Your task to perform on an android device: change notifications settings Image 0: 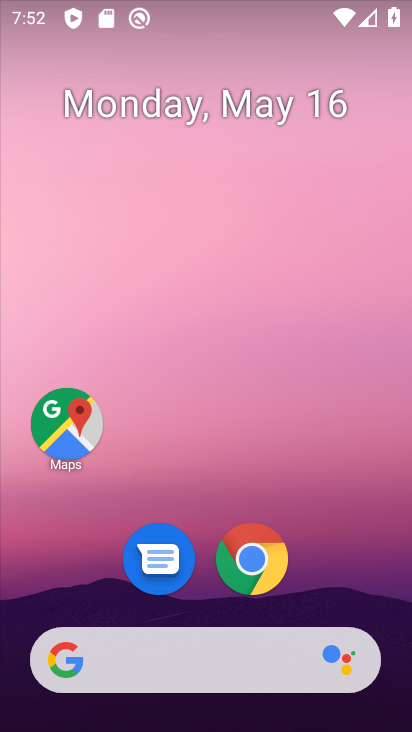
Step 0: drag from (218, 512) to (233, 290)
Your task to perform on an android device: change notifications settings Image 1: 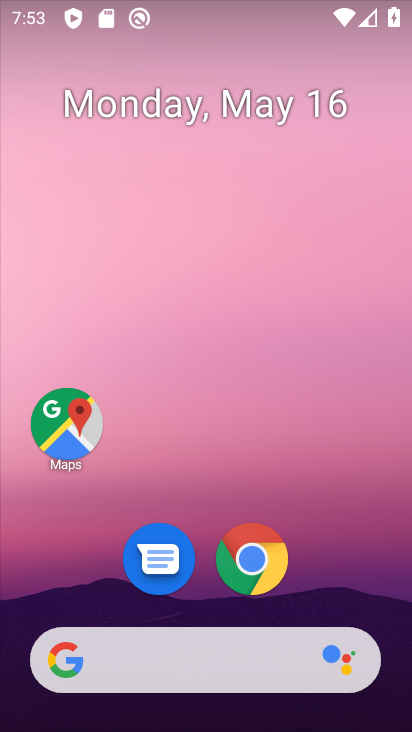
Step 1: drag from (234, 636) to (300, 108)
Your task to perform on an android device: change notifications settings Image 2: 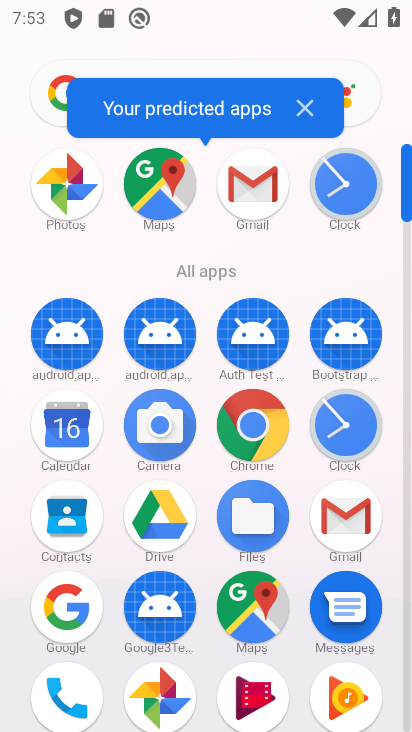
Step 2: drag from (232, 541) to (301, 123)
Your task to perform on an android device: change notifications settings Image 3: 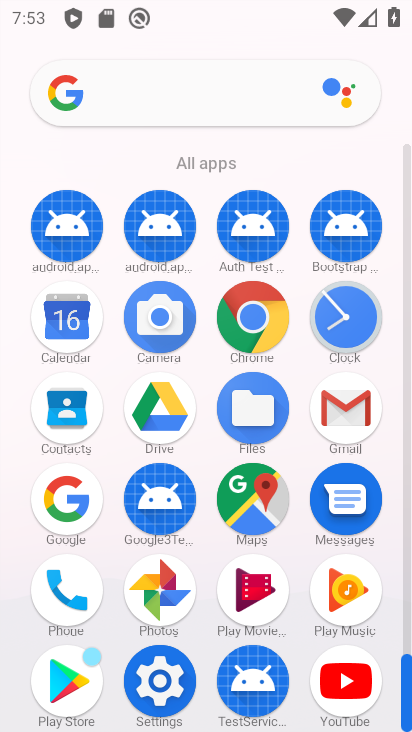
Step 3: click (162, 688)
Your task to perform on an android device: change notifications settings Image 4: 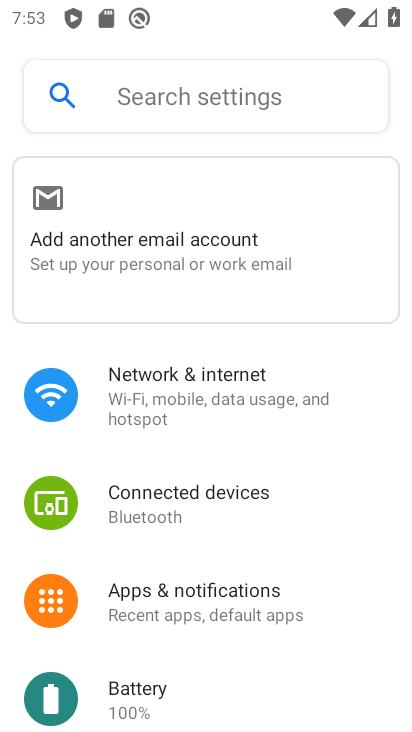
Step 4: click (199, 580)
Your task to perform on an android device: change notifications settings Image 5: 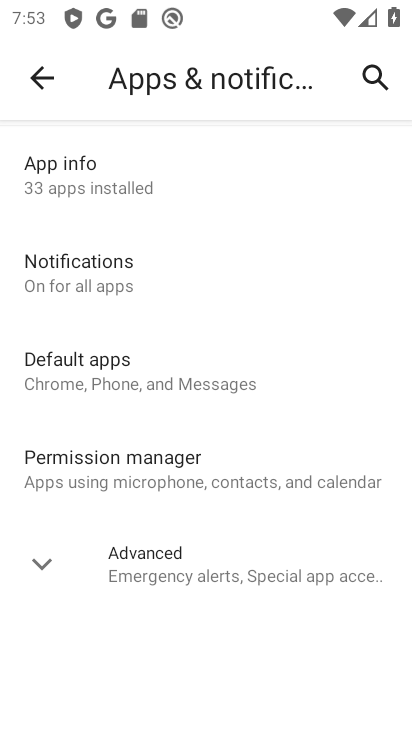
Step 5: click (111, 284)
Your task to perform on an android device: change notifications settings Image 6: 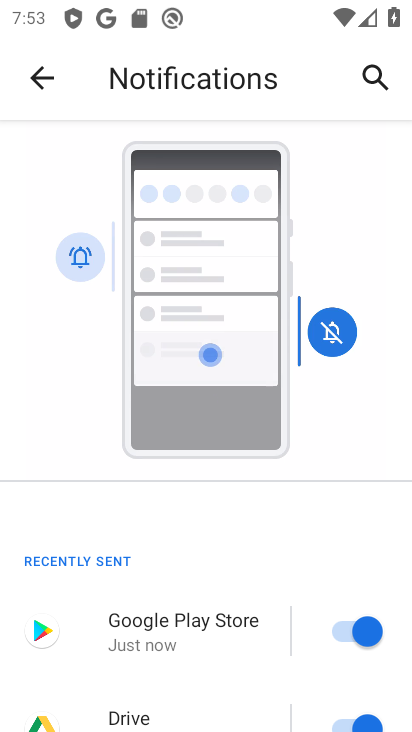
Step 6: drag from (215, 646) to (328, 32)
Your task to perform on an android device: change notifications settings Image 7: 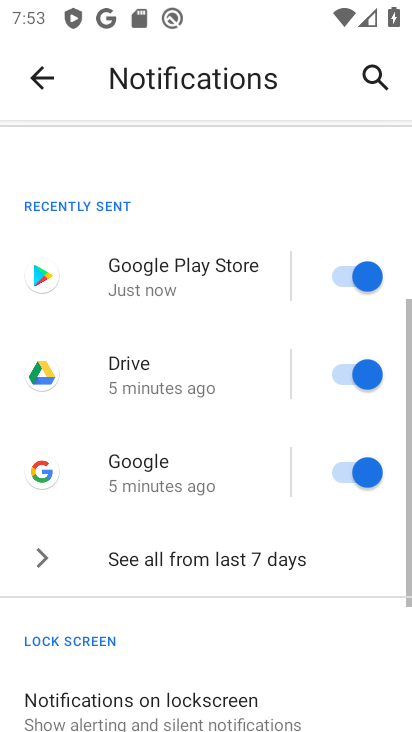
Step 7: drag from (162, 621) to (243, 132)
Your task to perform on an android device: change notifications settings Image 8: 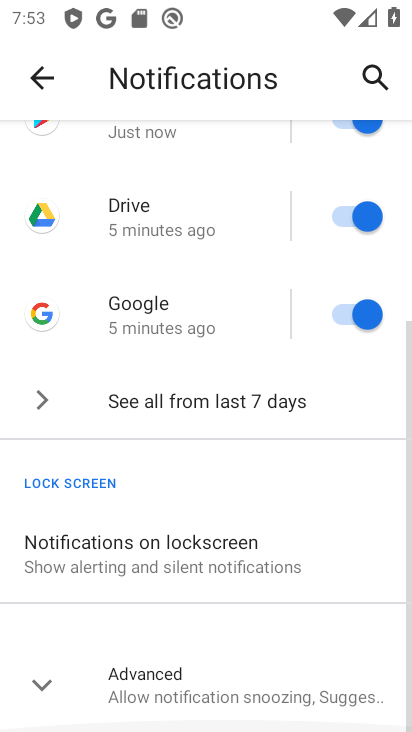
Step 8: click (198, 655)
Your task to perform on an android device: change notifications settings Image 9: 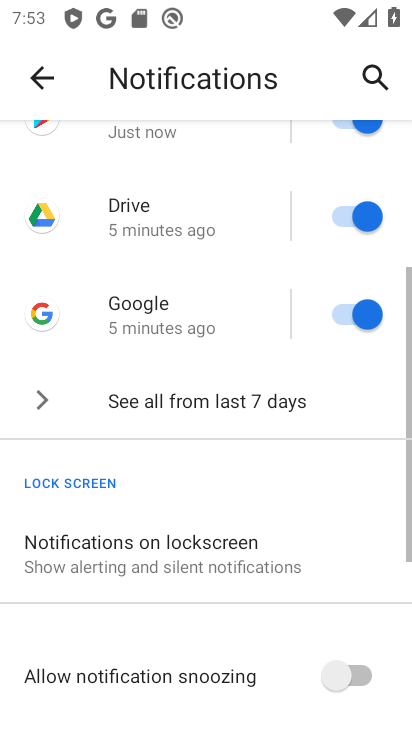
Step 9: drag from (207, 594) to (263, 294)
Your task to perform on an android device: change notifications settings Image 10: 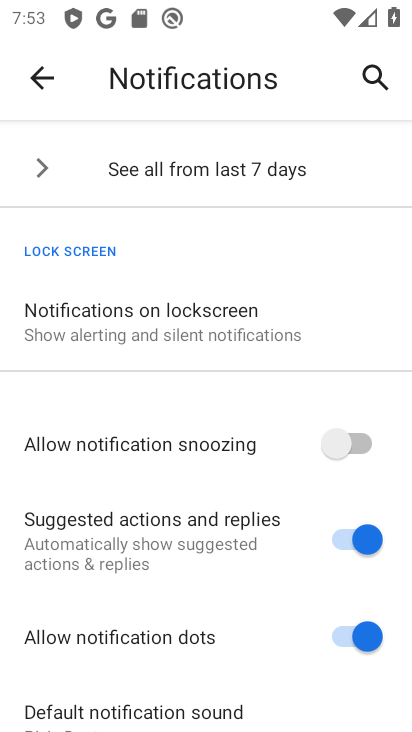
Step 10: click (361, 424)
Your task to perform on an android device: change notifications settings Image 11: 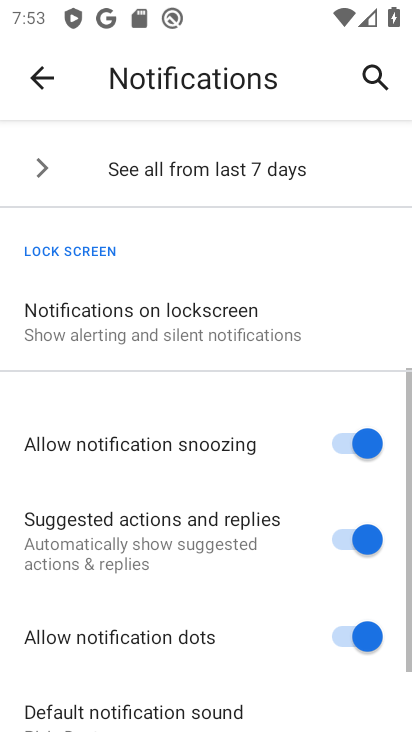
Step 11: task complete